Your task to perform on an android device: Set the phone to "Do not disturb". Image 0: 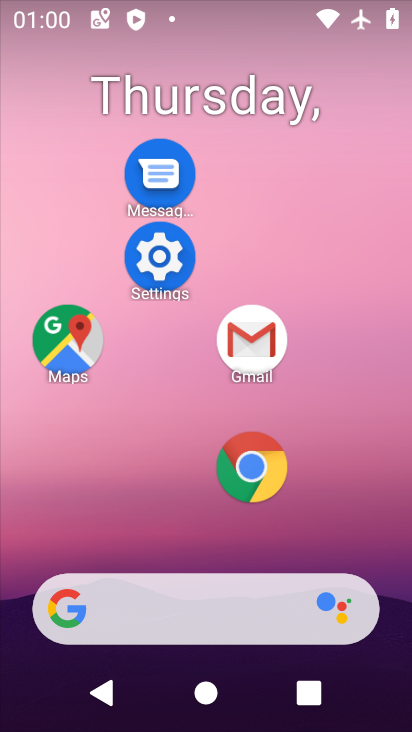
Step 0: drag from (202, 207) to (212, 130)
Your task to perform on an android device: Set the phone to "Do not disturb". Image 1: 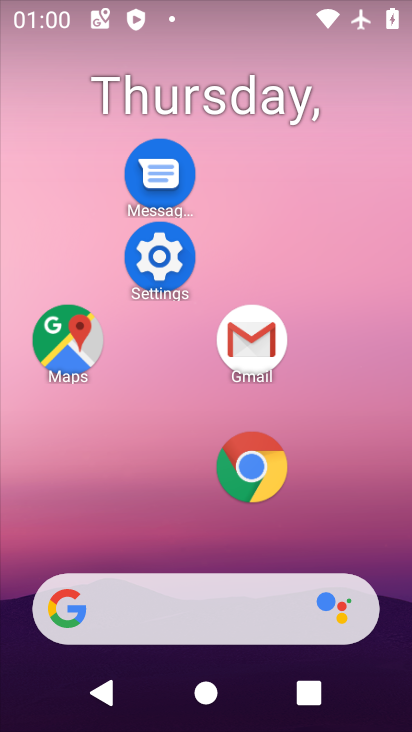
Step 1: drag from (206, 507) to (165, 224)
Your task to perform on an android device: Set the phone to "Do not disturb". Image 2: 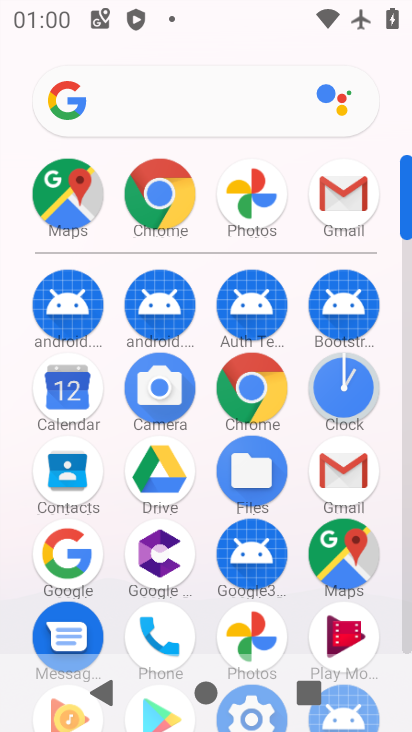
Step 2: drag from (201, 647) to (212, 268)
Your task to perform on an android device: Set the phone to "Do not disturb". Image 3: 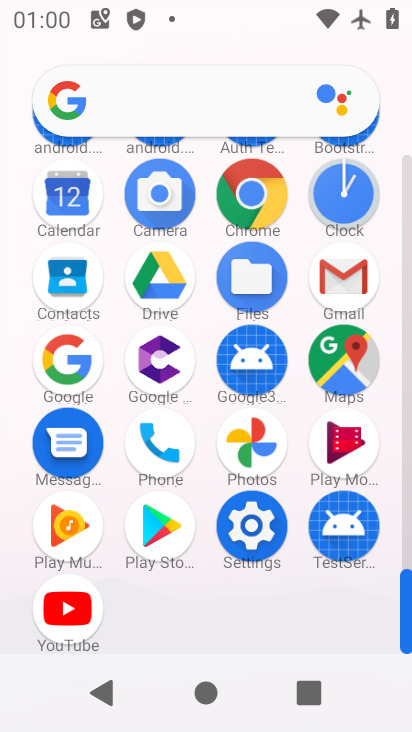
Step 3: click (254, 621)
Your task to perform on an android device: Set the phone to "Do not disturb". Image 4: 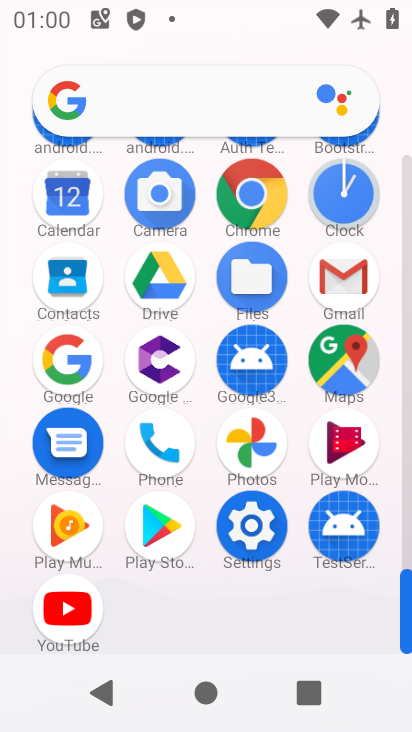
Step 4: drag from (254, 617) to (242, 514)
Your task to perform on an android device: Set the phone to "Do not disturb". Image 5: 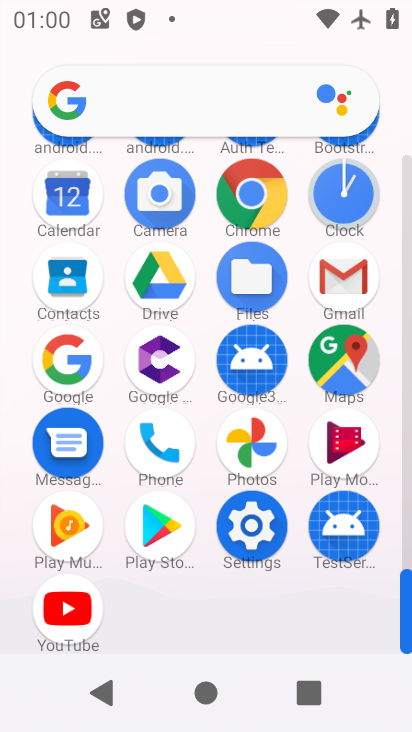
Step 5: click (242, 514)
Your task to perform on an android device: Set the phone to "Do not disturb". Image 6: 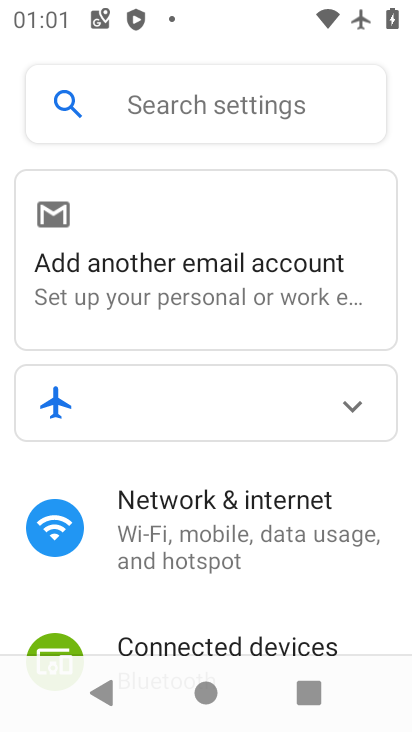
Step 6: click (246, 539)
Your task to perform on an android device: Set the phone to "Do not disturb". Image 7: 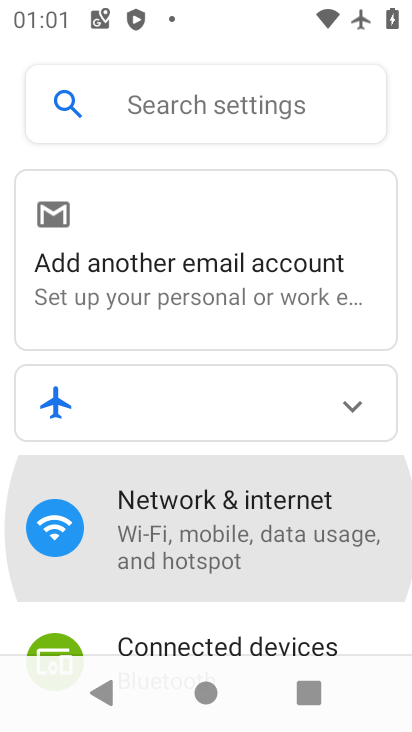
Step 7: drag from (253, 534) to (370, 266)
Your task to perform on an android device: Set the phone to "Do not disturb". Image 8: 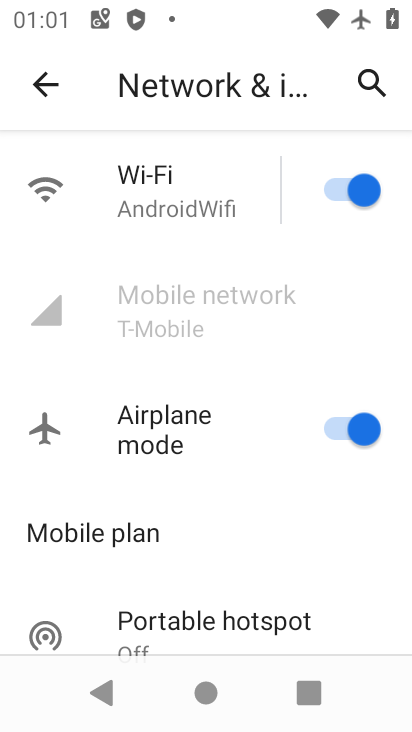
Step 8: click (48, 83)
Your task to perform on an android device: Set the phone to "Do not disturb". Image 9: 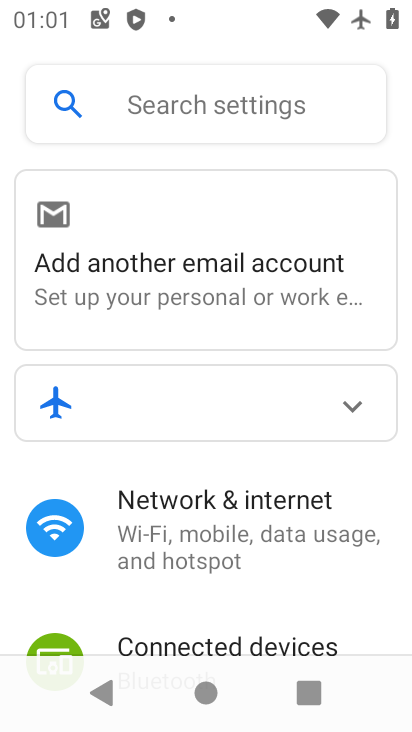
Step 9: drag from (210, 587) to (292, 58)
Your task to perform on an android device: Set the phone to "Do not disturb". Image 10: 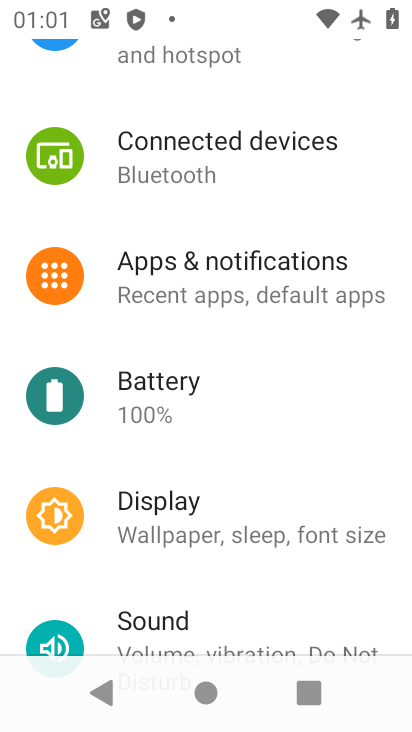
Step 10: drag from (251, 527) to (328, 128)
Your task to perform on an android device: Set the phone to "Do not disturb". Image 11: 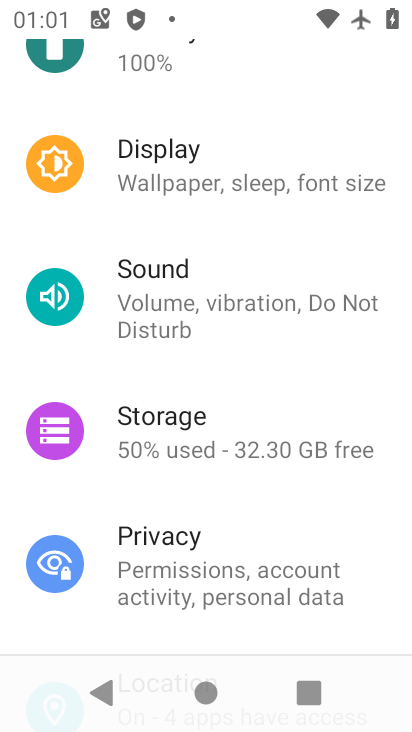
Step 11: drag from (285, 147) to (207, 435)
Your task to perform on an android device: Set the phone to "Do not disturb". Image 12: 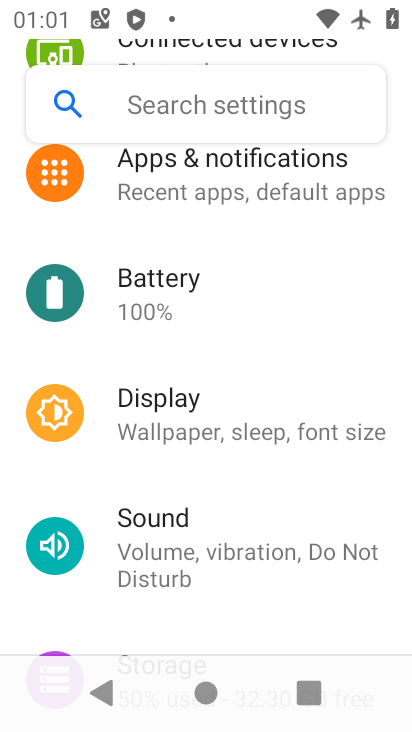
Step 12: click (261, 169)
Your task to perform on an android device: Set the phone to "Do not disturb". Image 13: 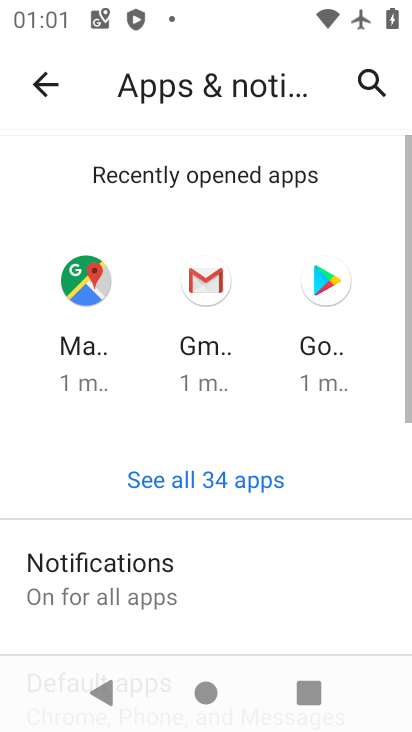
Step 13: click (145, 582)
Your task to perform on an android device: Set the phone to "Do not disturb". Image 14: 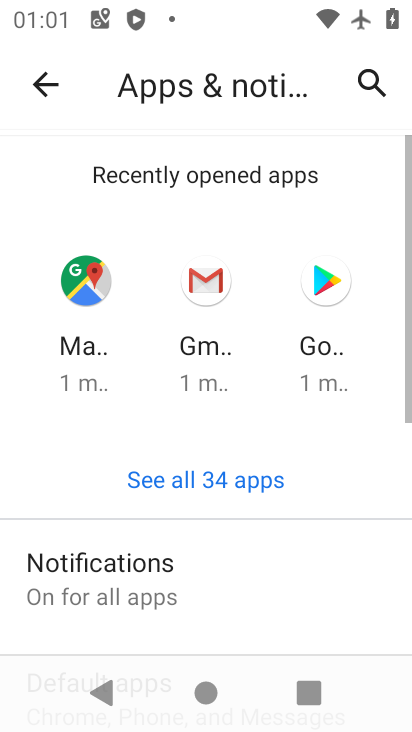
Step 14: drag from (146, 569) to (341, 68)
Your task to perform on an android device: Set the phone to "Do not disturb". Image 15: 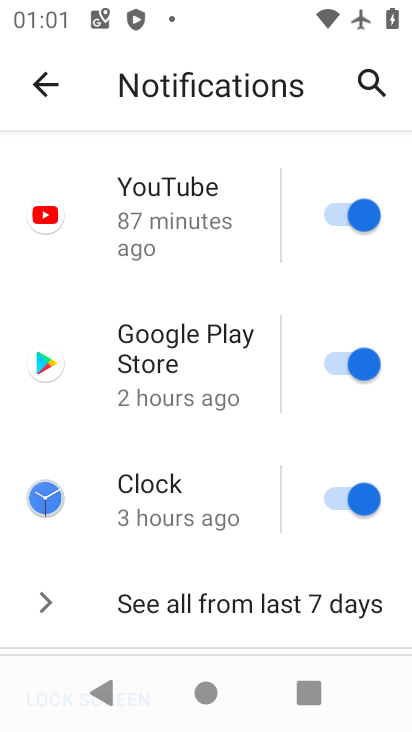
Step 15: drag from (238, 551) to (379, 119)
Your task to perform on an android device: Set the phone to "Do not disturb". Image 16: 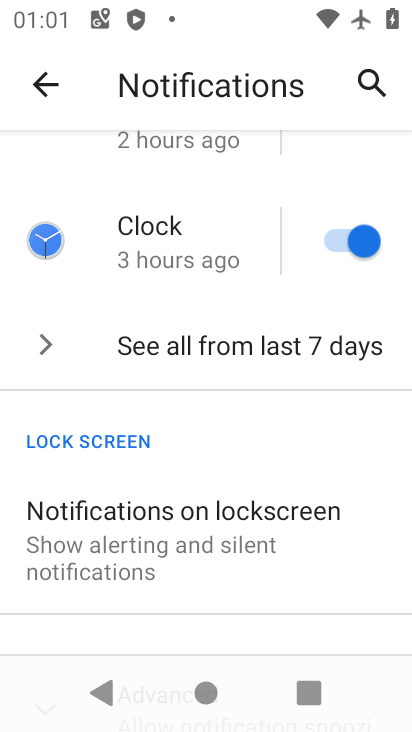
Step 16: drag from (218, 606) to (310, 199)
Your task to perform on an android device: Set the phone to "Do not disturb". Image 17: 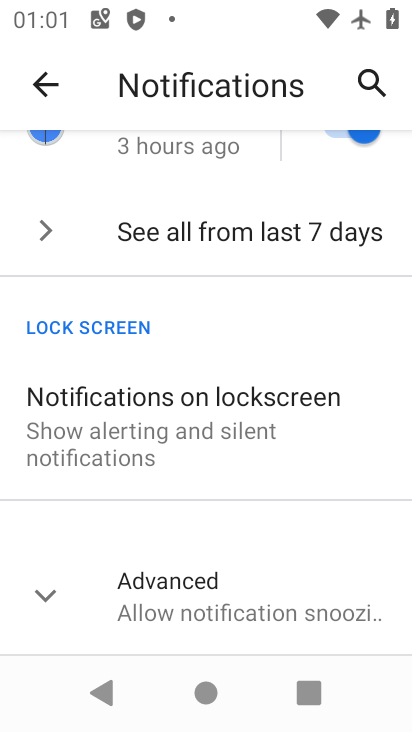
Step 17: click (141, 599)
Your task to perform on an android device: Set the phone to "Do not disturb". Image 18: 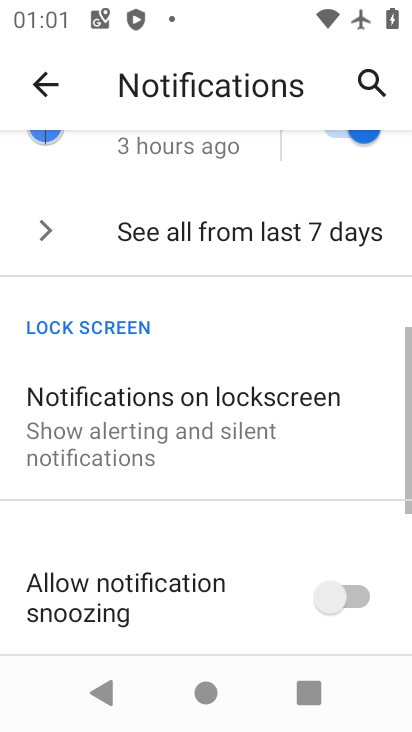
Step 18: drag from (159, 552) to (411, 6)
Your task to perform on an android device: Set the phone to "Do not disturb". Image 19: 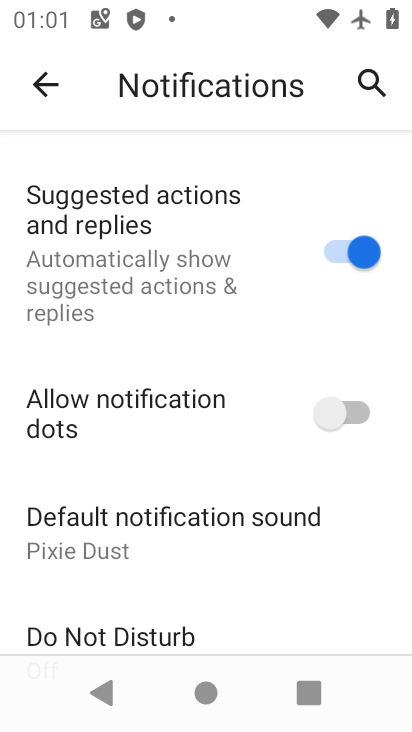
Step 19: drag from (170, 538) to (264, 148)
Your task to perform on an android device: Set the phone to "Do not disturb". Image 20: 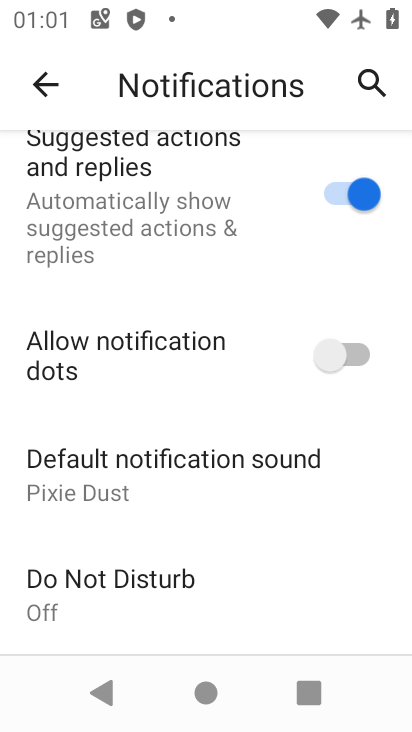
Step 20: click (115, 596)
Your task to perform on an android device: Set the phone to "Do not disturb". Image 21: 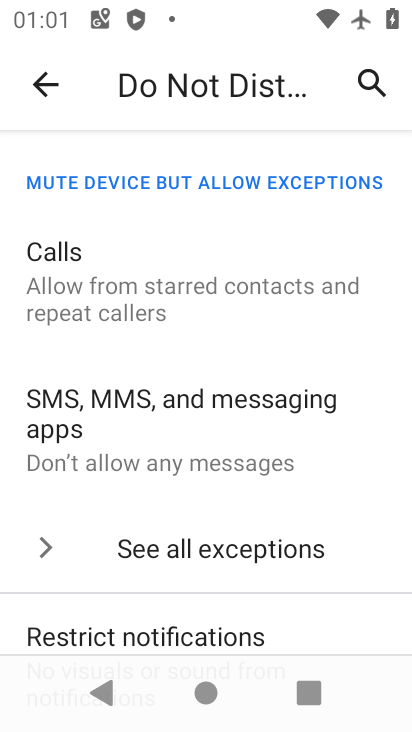
Step 21: drag from (183, 609) to (375, 161)
Your task to perform on an android device: Set the phone to "Do not disturb". Image 22: 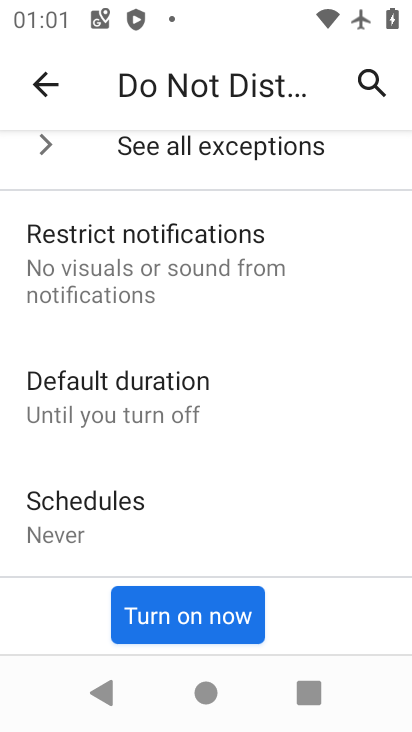
Step 22: drag from (154, 578) to (225, 254)
Your task to perform on an android device: Set the phone to "Do not disturb". Image 23: 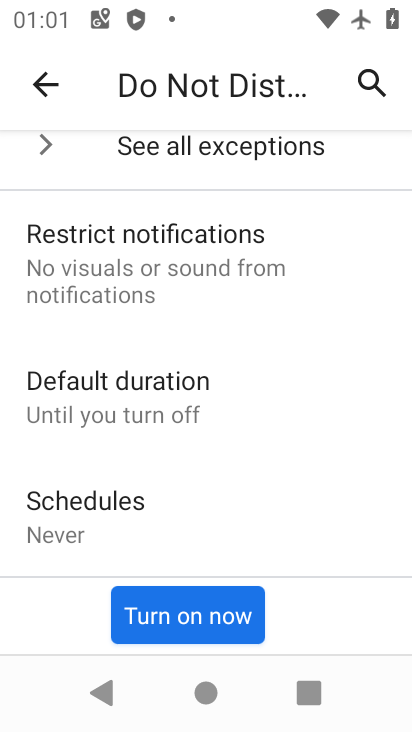
Step 23: click (190, 609)
Your task to perform on an android device: Set the phone to "Do not disturb". Image 24: 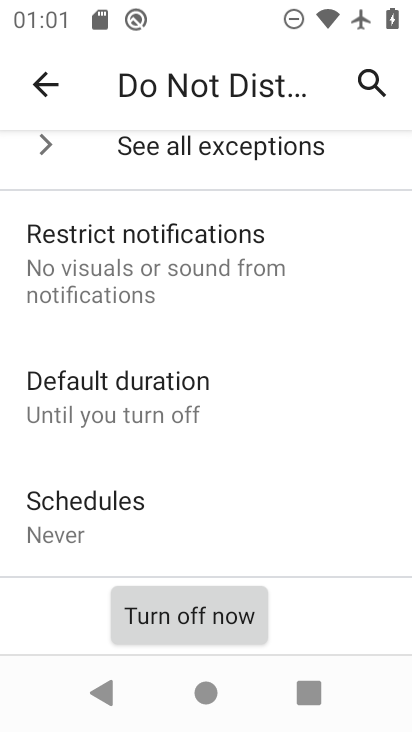
Step 24: click (196, 614)
Your task to perform on an android device: Set the phone to "Do not disturb". Image 25: 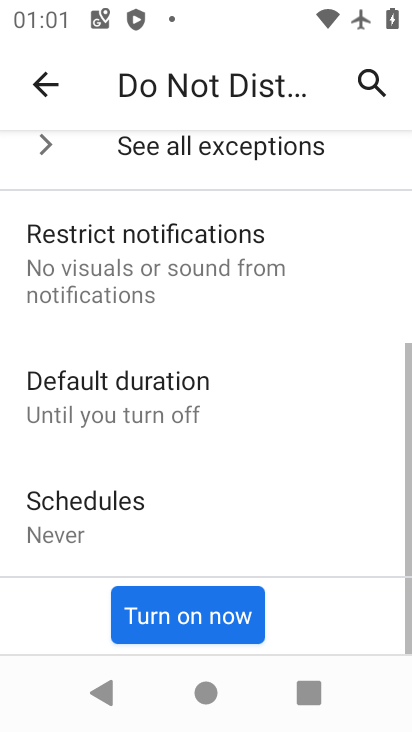
Step 25: task complete